Your task to perform on an android device: Toggle the flashlight Image 0: 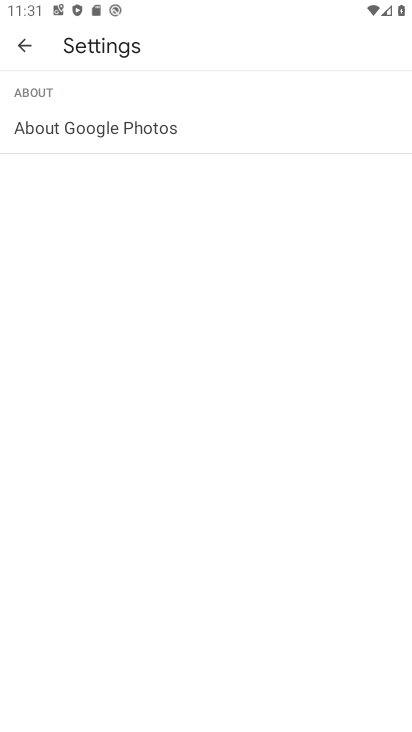
Step 0: press back button
Your task to perform on an android device: Toggle the flashlight Image 1: 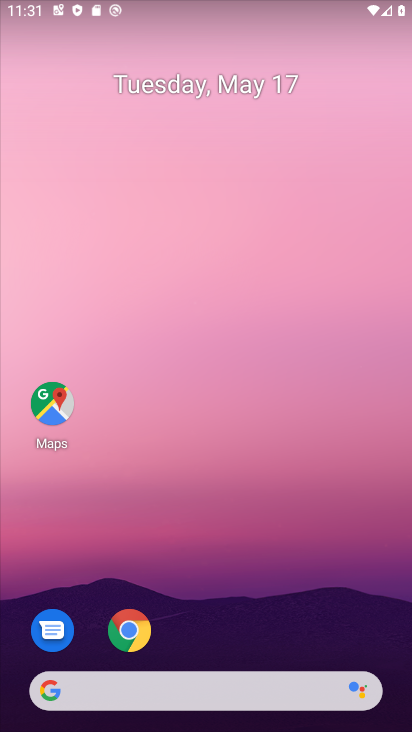
Step 1: drag from (197, 630) to (321, 151)
Your task to perform on an android device: Toggle the flashlight Image 2: 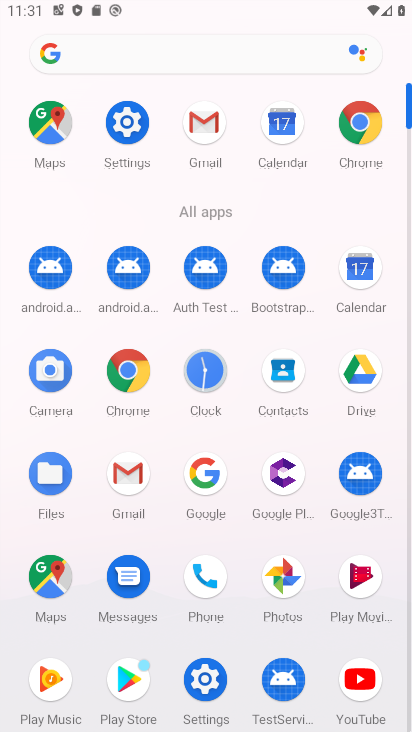
Step 2: click (136, 116)
Your task to perform on an android device: Toggle the flashlight Image 3: 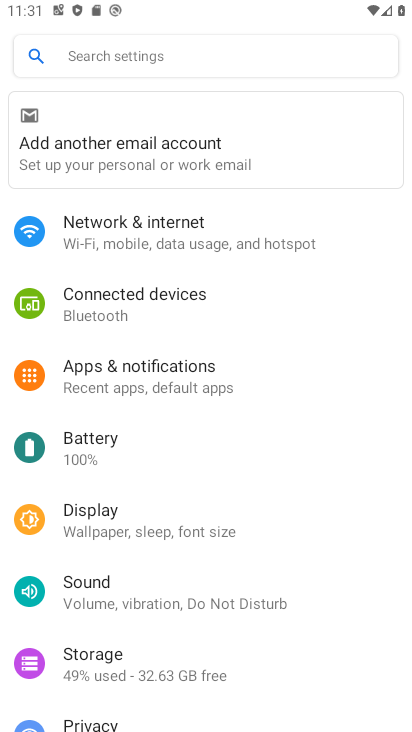
Step 3: click (109, 54)
Your task to perform on an android device: Toggle the flashlight Image 4: 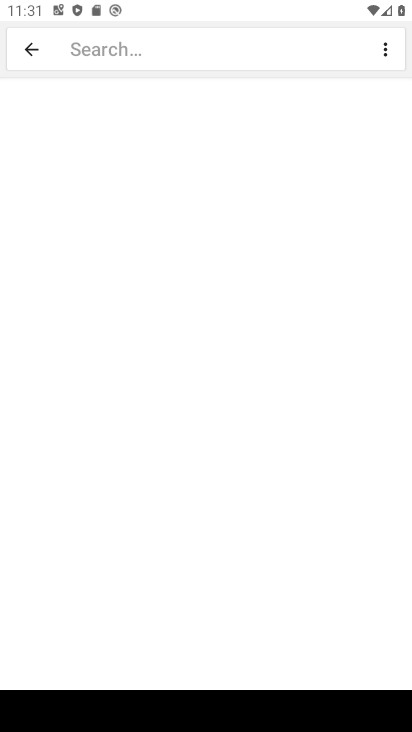
Step 4: type "flashlight"
Your task to perform on an android device: Toggle the flashlight Image 5: 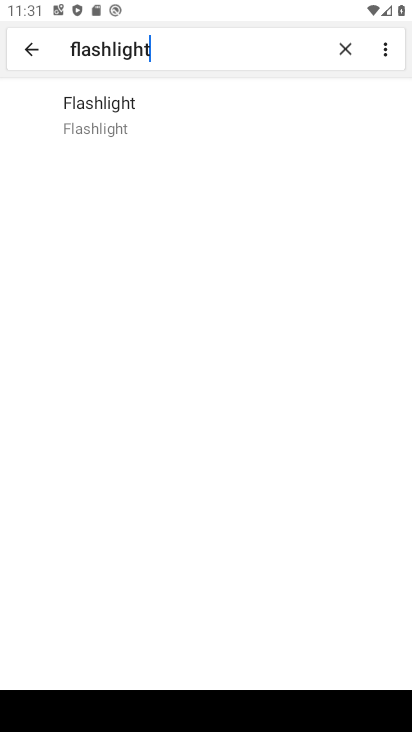
Step 5: click (148, 113)
Your task to perform on an android device: Toggle the flashlight Image 6: 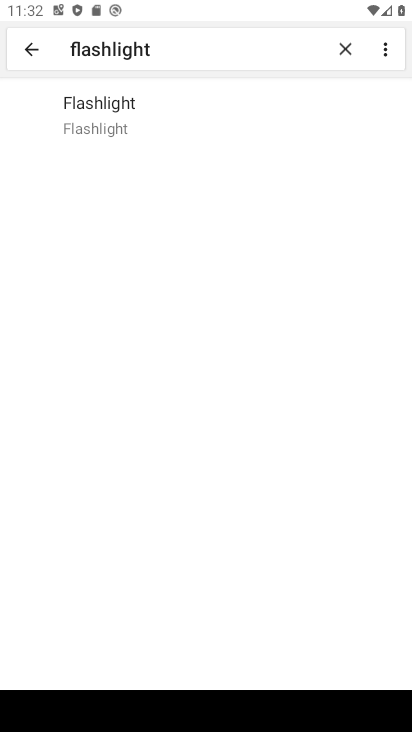
Step 6: click (133, 117)
Your task to perform on an android device: Toggle the flashlight Image 7: 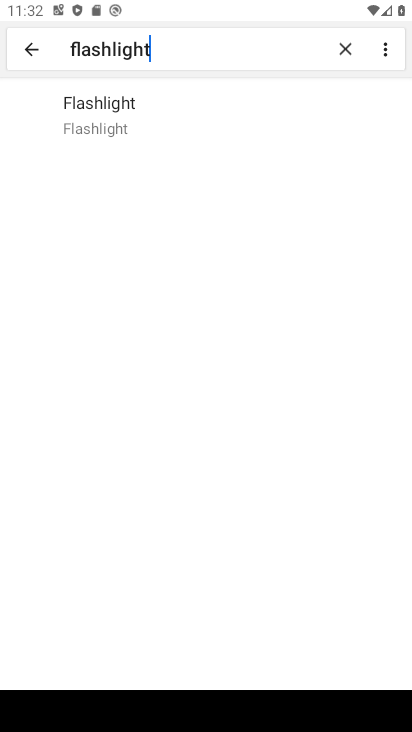
Step 7: task complete